Your task to perform on an android device: open a new tab in the chrome app Image 0: 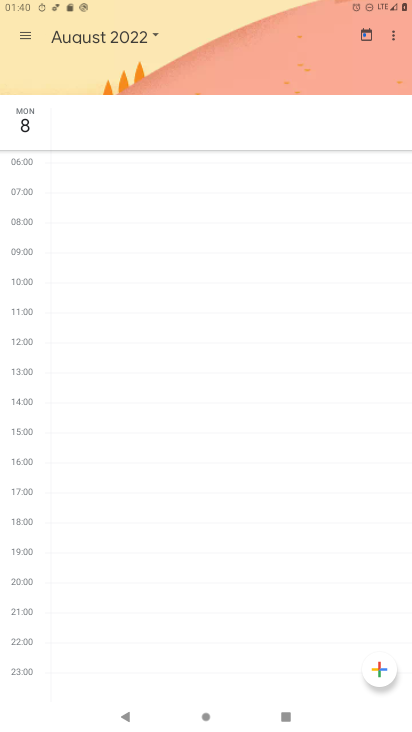
Step 0: press home button
Your task to perform on an android device: open a new tab in the chrome app Image 1: 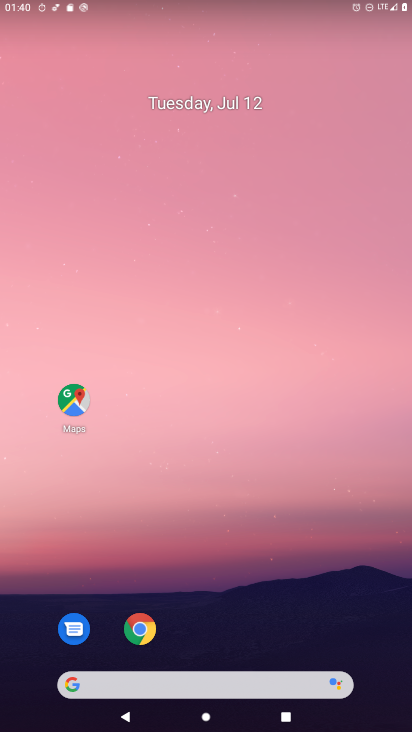
Step 1: click (140, 635)
Your task to perform on an android device: open a new tab in the chrome app Image 2: 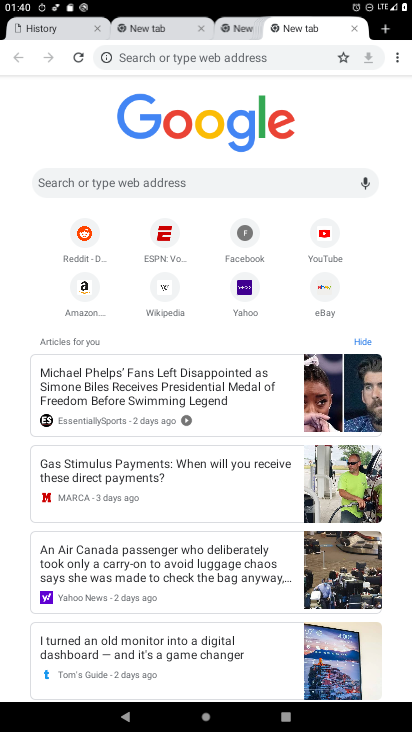
Step 2: click (375, 27)
Your task to perform on an android device: open a new tab in the chrome app Image 3: 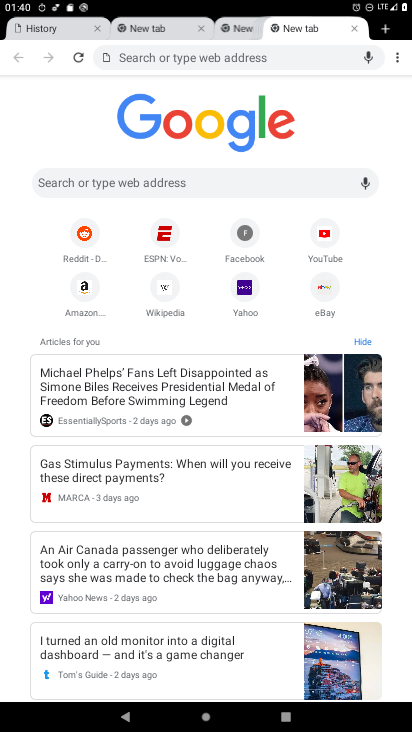
Step 3: task complete